Your task to perform on an android device: turn off smart reply in the gmail app Image 0: 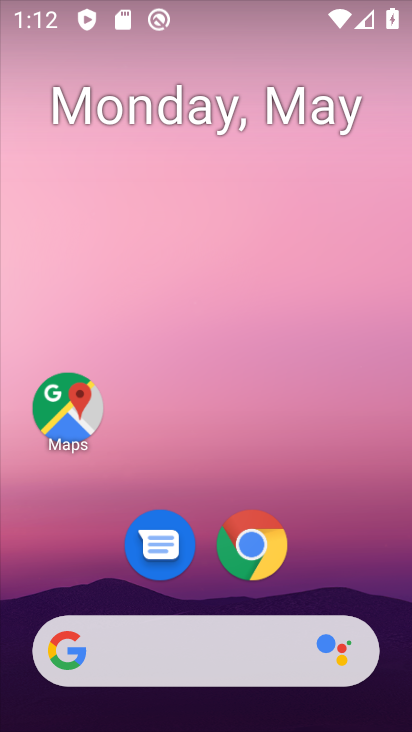
Step 0: drag from (253, 724) to (232, 17)
Your task to perform on an android device: turn off smart reply in the gmail app Image 1: 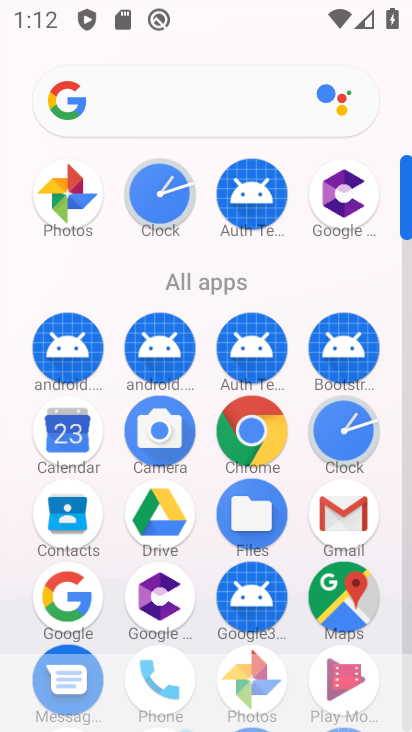
Step 1: click (339, 528)
Your task to perform on an android device: turn off smart reply in the gmail app Image 2: 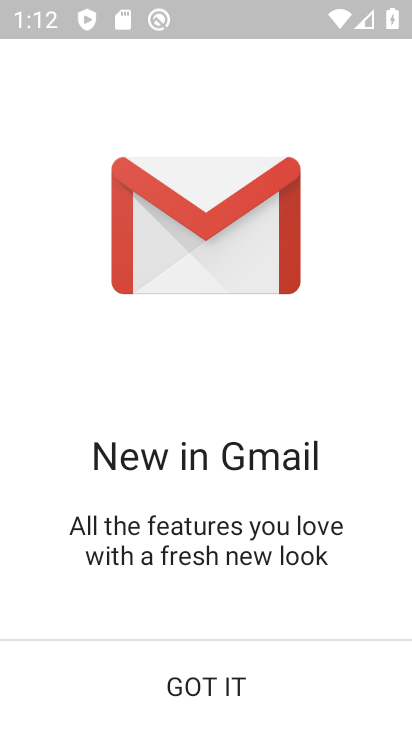
Step 2: click (241, 691)
Your task to perform on an android device: turn off smart reply in the gmail app Image 3: 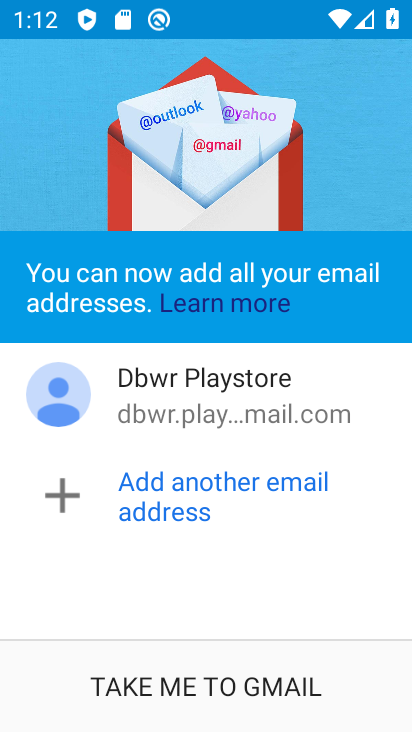
Step 3: click (241, 691)
Your task to perform on an android device: turn off smart reply in the gmail app Image 4: 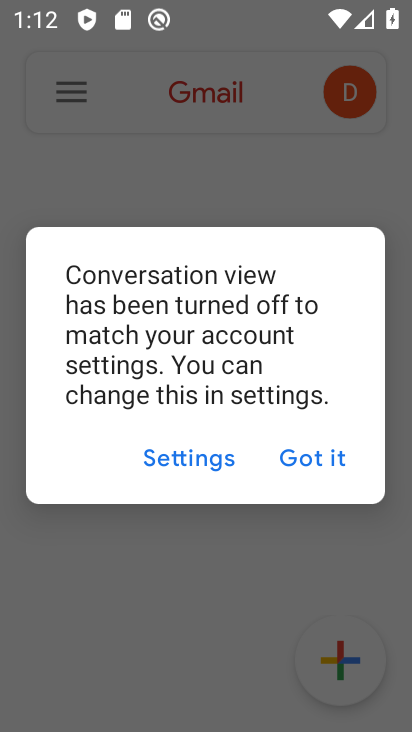
Step 4: click (317, 448)
Your task to perform on an android device: turn off smart reply in the gmail app Image 5: 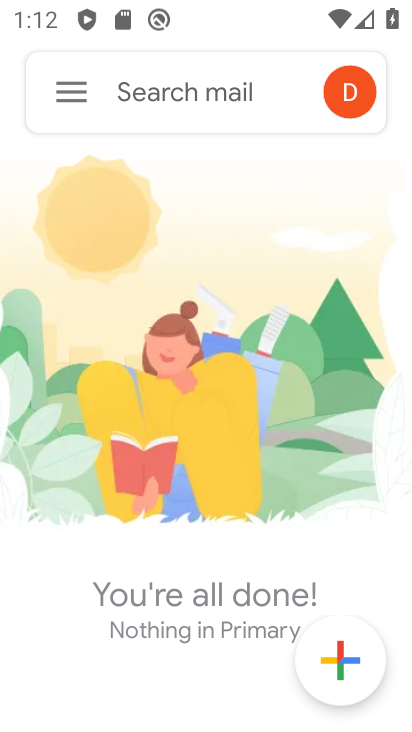
Step 5: click (60, 98)
Your task to perform on an android device: turn off smart reply in the gmail app Image 6: 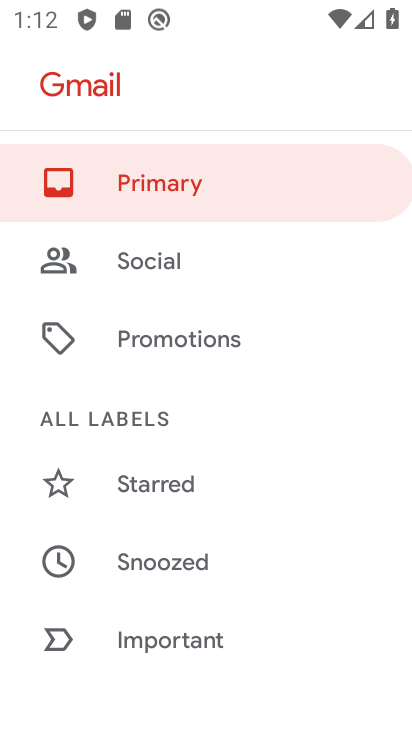
Step 6: drag from (234, 654) to (183, 97)
Your task to perform on an android device: turn off smart reply in the gmail app Image 7: 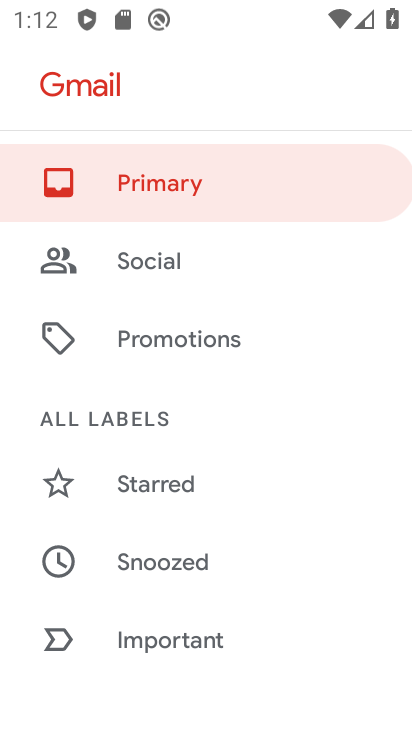
Step 7: drag from (230, 602) to (224, 3)
Your task to perform on an android device: turn off smart reply in the gmail app Image 8: 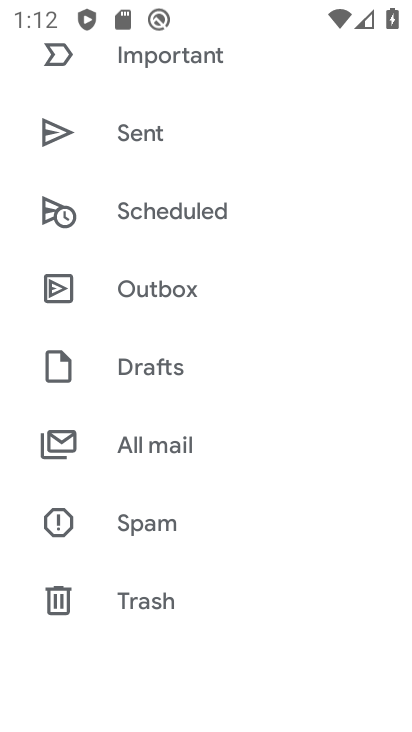
Step 8: drag from (217, 587) to (228, 15)
Your task to perform on an android device: turn off smart reply in the gmail app Image 9: 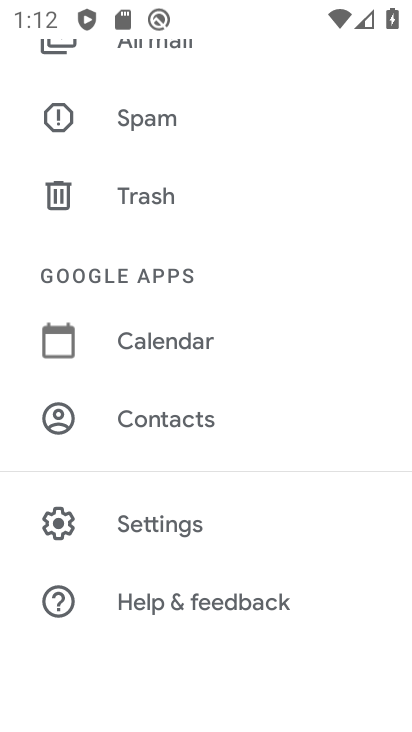
Step 9: click (167, 521)
Your task to perform on an android device: turn off smart reply in the gmail app Image 10: 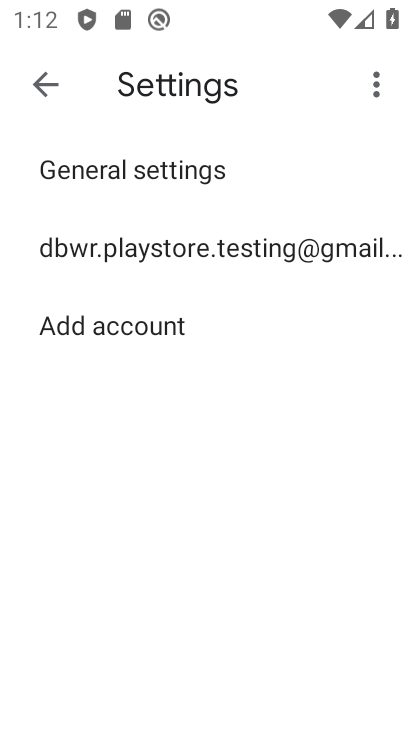
Step 10: click (306, 252)
Your task to perform on an android device: turn off smart reply in the gmail app Image 11: 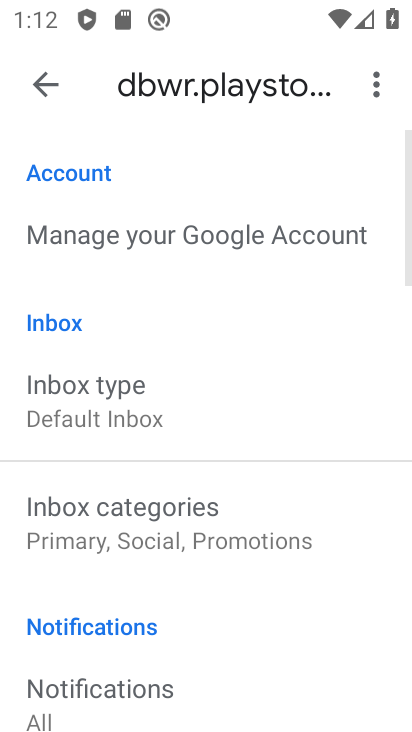
Step 11: drag from (307, 684) to (324, 195)
Your task to perform on an android device: turn off smart reply in the gmail app Image 12: 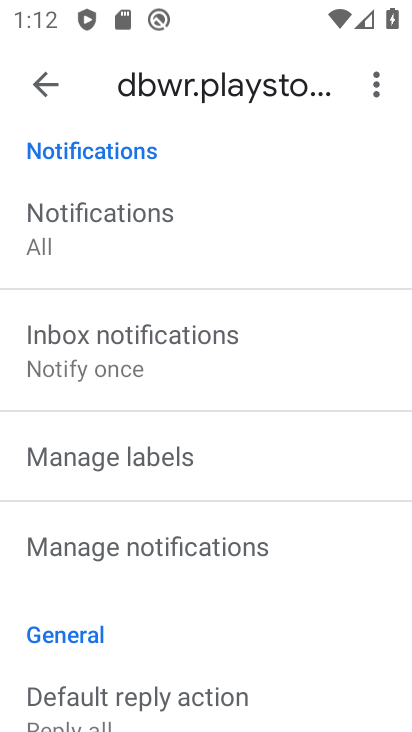
Step 12: click (271, 165)
Your task to perform on an android device: turn off smart reply in the gmail app Image 13: 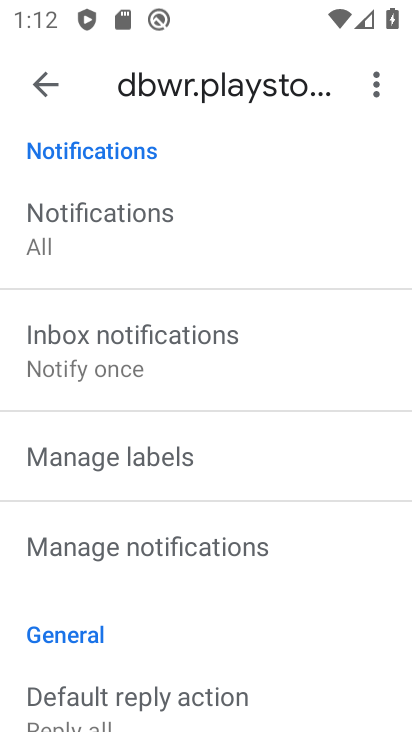
Step 13: drag from (244, 576) to (260, 70)
Your task to perform on an android device: turn off smart reply in the gmail app Image 14: 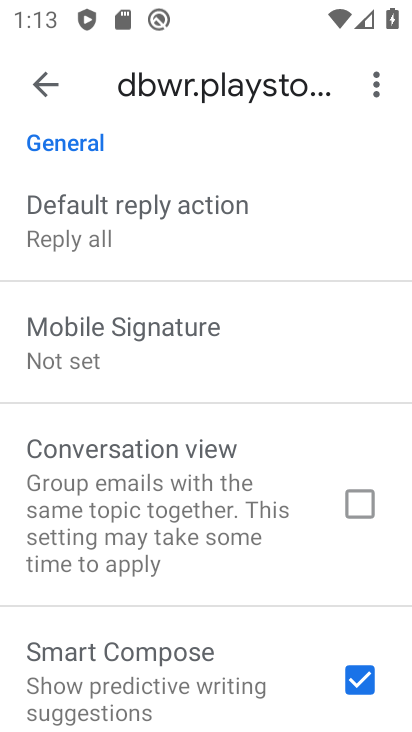
Step 14: drag from (270, 587) to (253, 176)
Your task to perform on an android device: turn off smart reply in the gmail app Image 15: 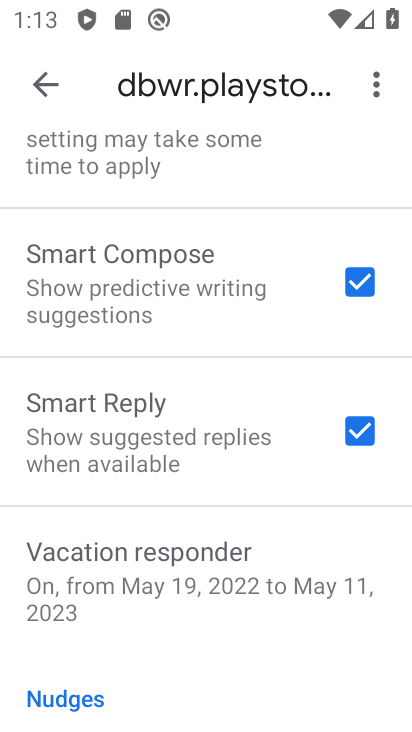
Step 15: click (372, 421)
Your task to perform on an android device: turn off smart reply in the gmail app Image 16: 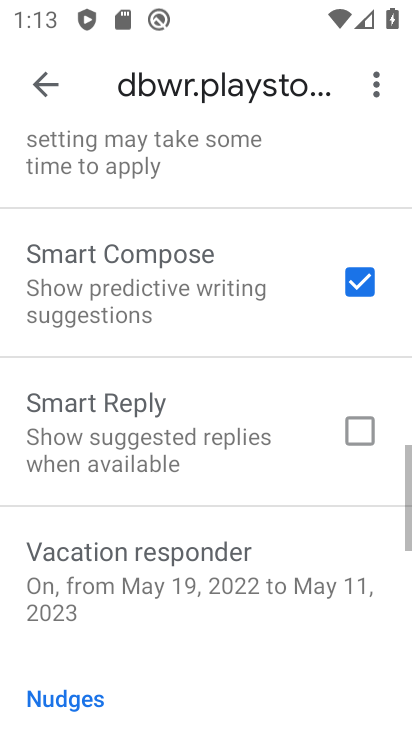
Step 16: task complete